Your task to perform on an android device: Add logitech g pro to the cart on costco.com Image 0: 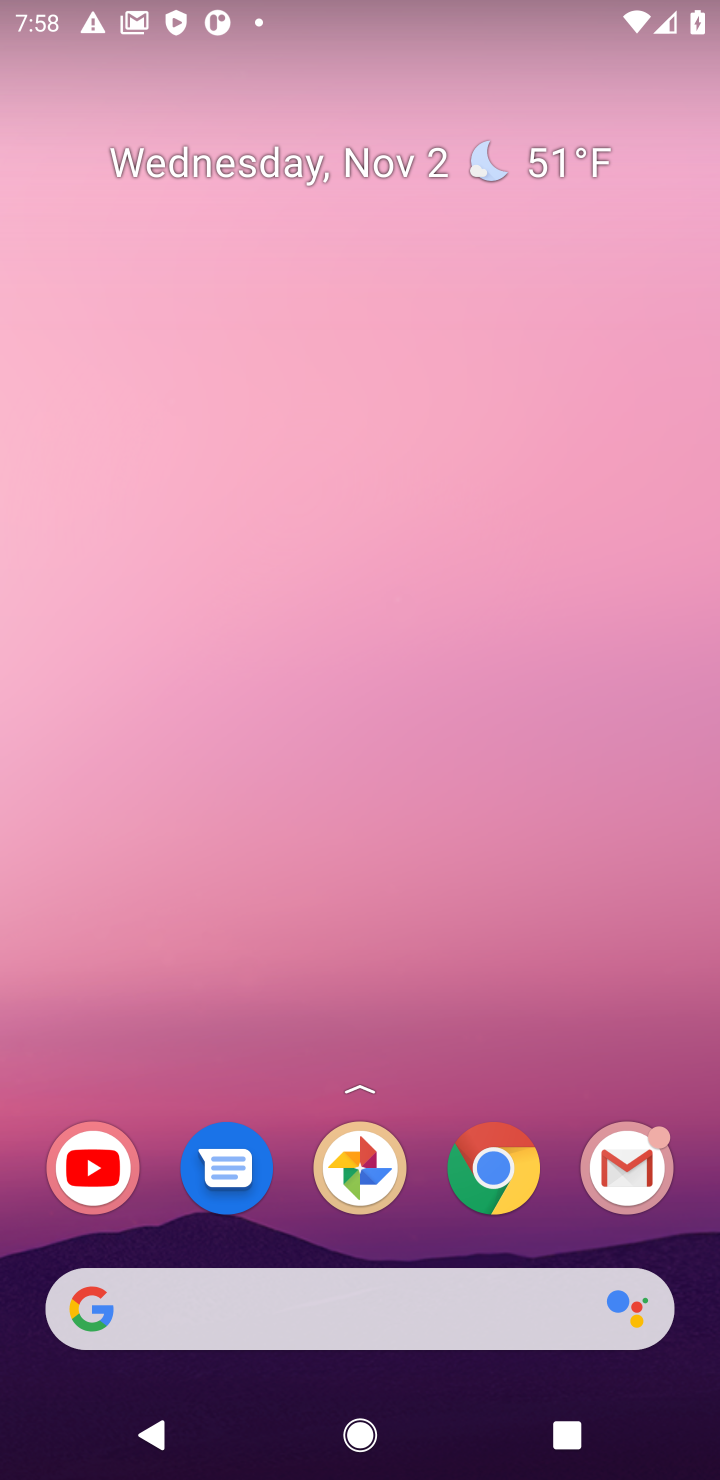
Step 0: press home button
Your task to perform on an android device: Add logitech g pro to the cart on costco.com Image 1: 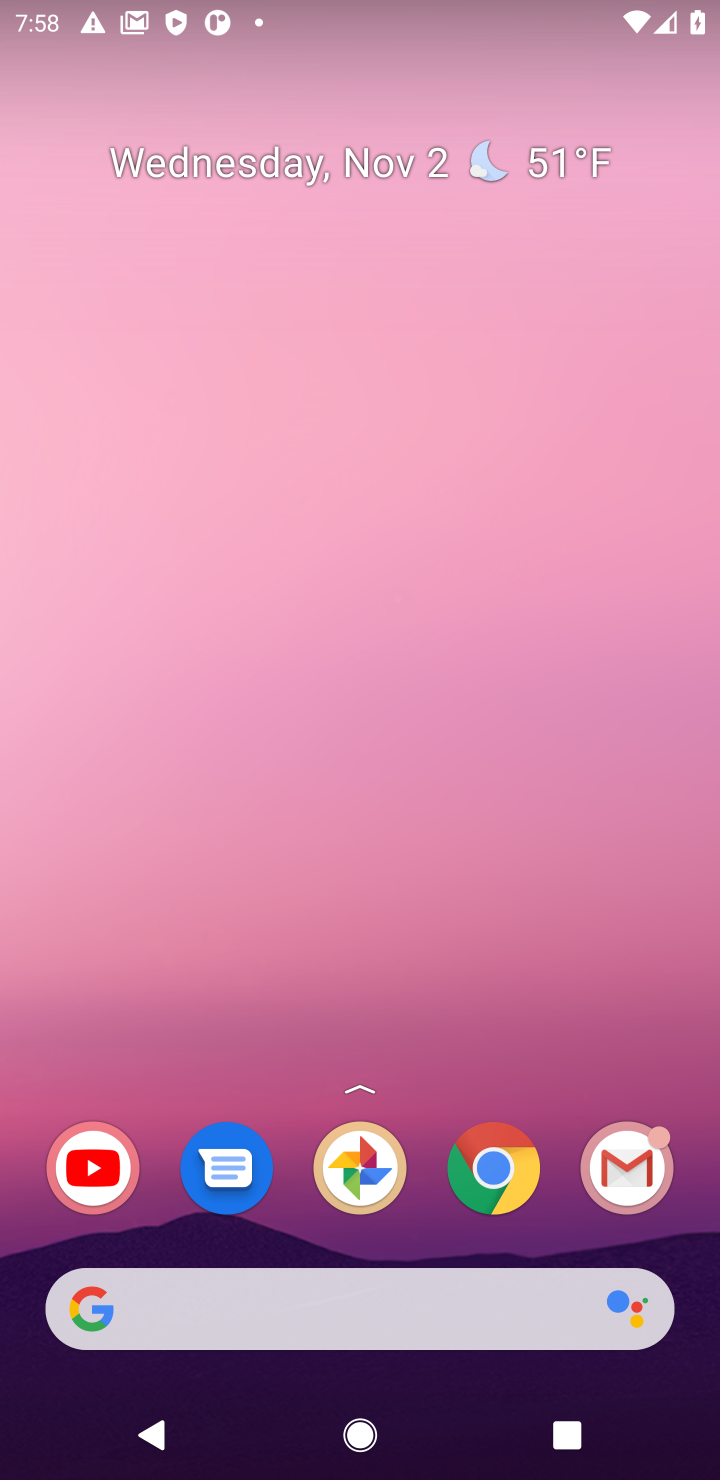
Step 1: drag from (416, 923) to (416, 111)
Your task to perform on an android device: Add logitech g pro to the cart on costco.com Image 2: 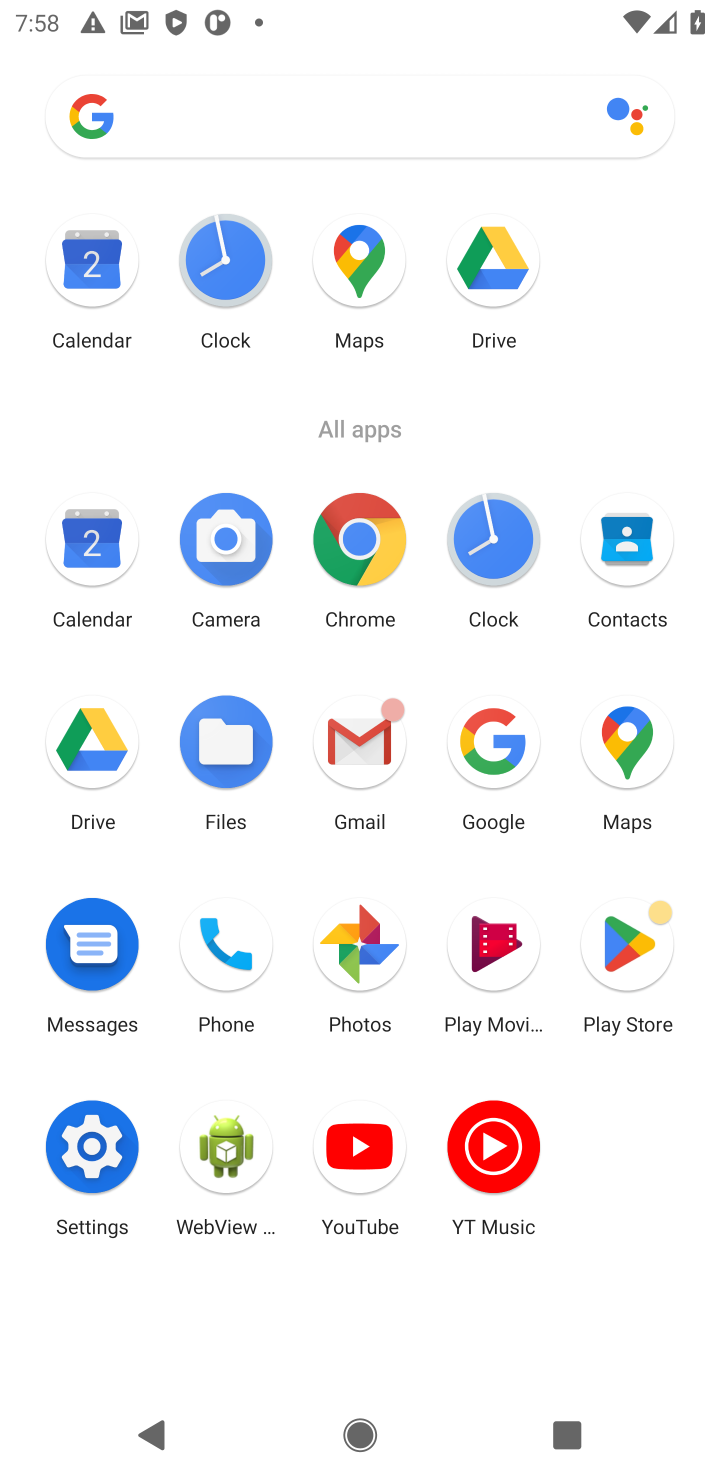
Step 2: click (352, 538)
Your task to perform on an android device: Add logitech g pro to the cart on costco.com Image 3: 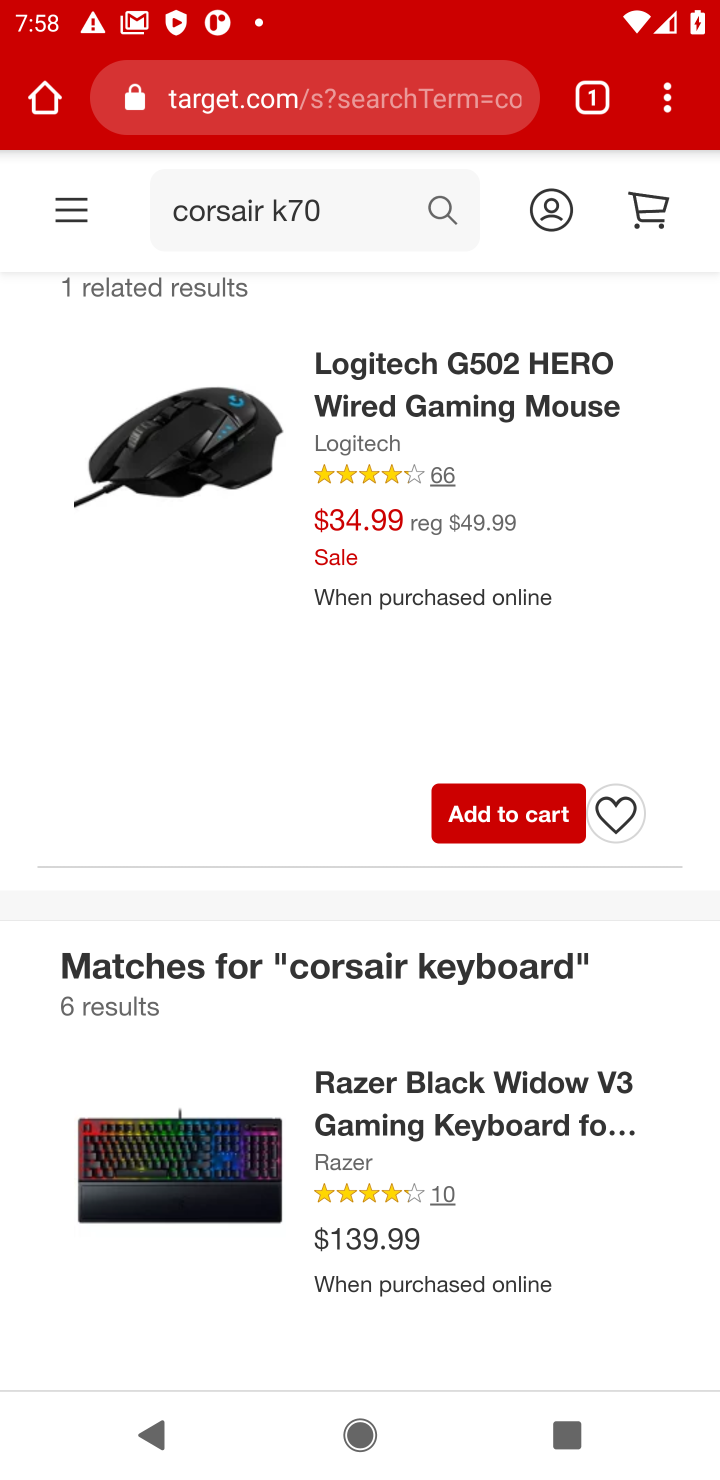
Step 3: click (232, 81)
Your task to perform on an android device: Add logitech g pro to the cart on costco.com Image 4: 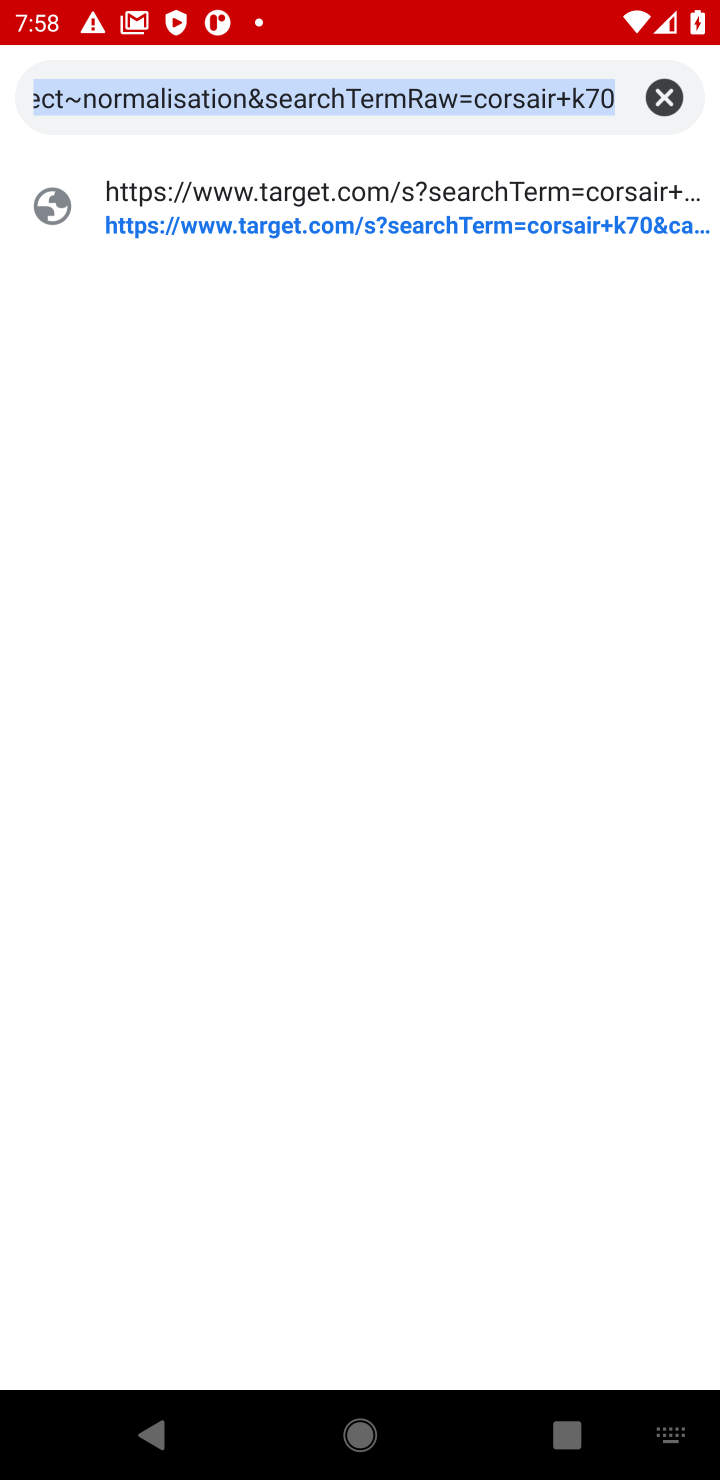
Step 4: type "costco"
Your task to perform on an android device: Add logitech g pro to the cart on costco.com Image 5: 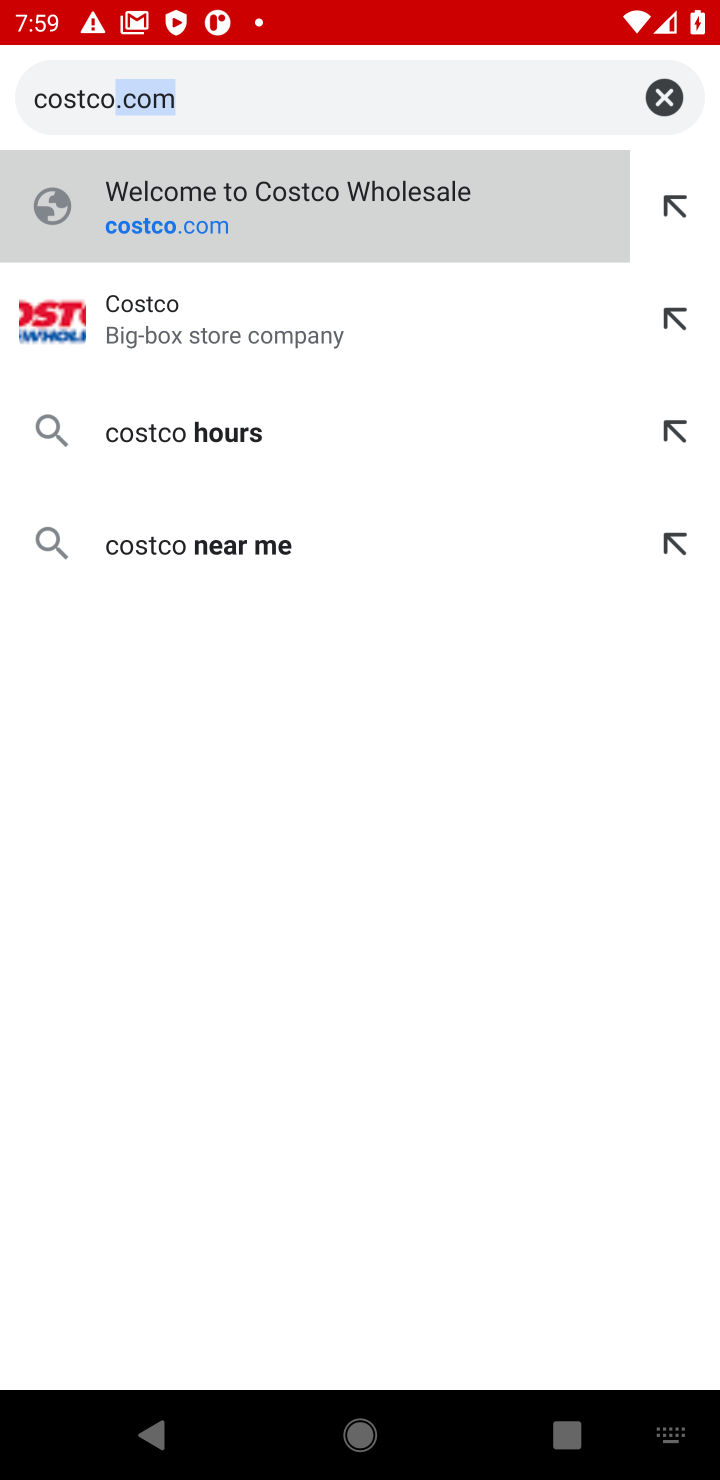
Step 5: click (214, 227)
Your task to perform on an android device: Add logitech g pro to the cart on costco.com Image 6: 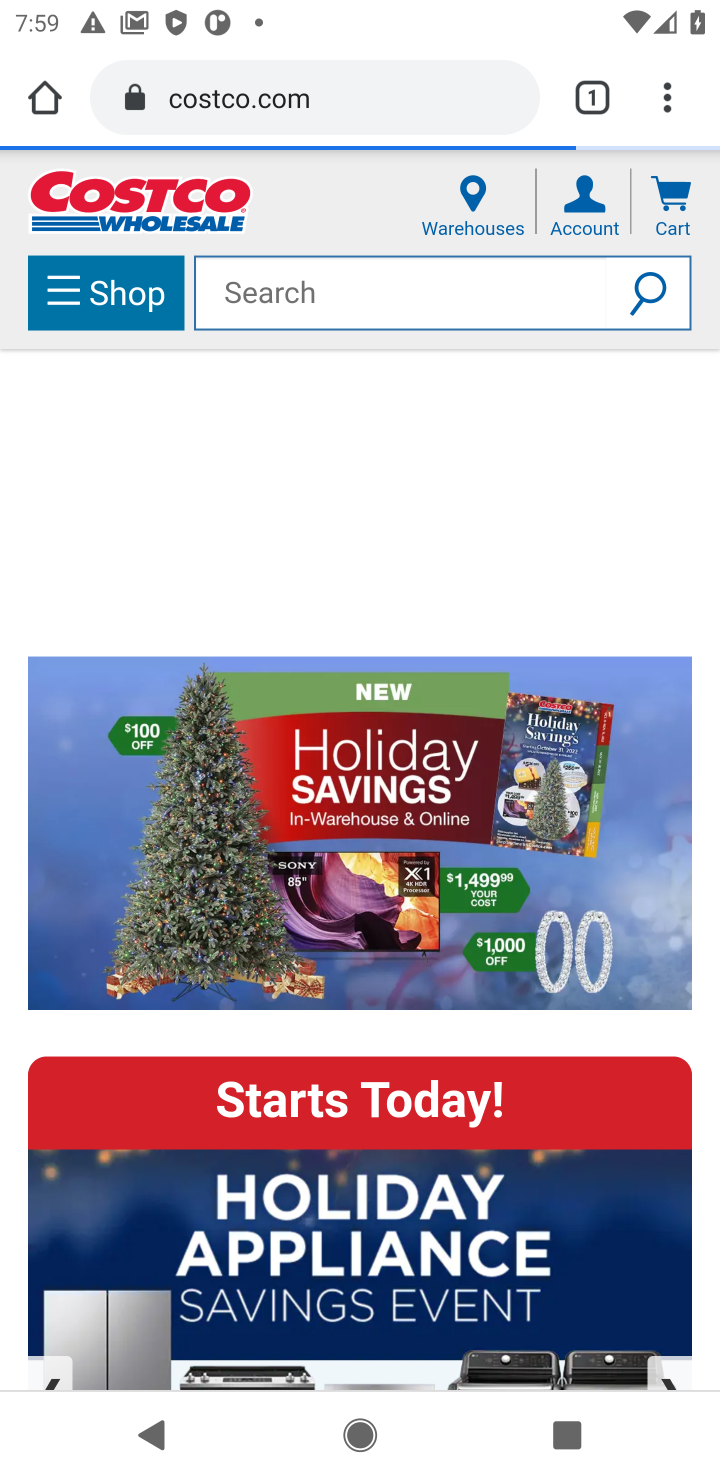
Step 6: click (298, 299)
Your task to perform on an android device: Add logitech g pro to the cart on costco.com Image 7: 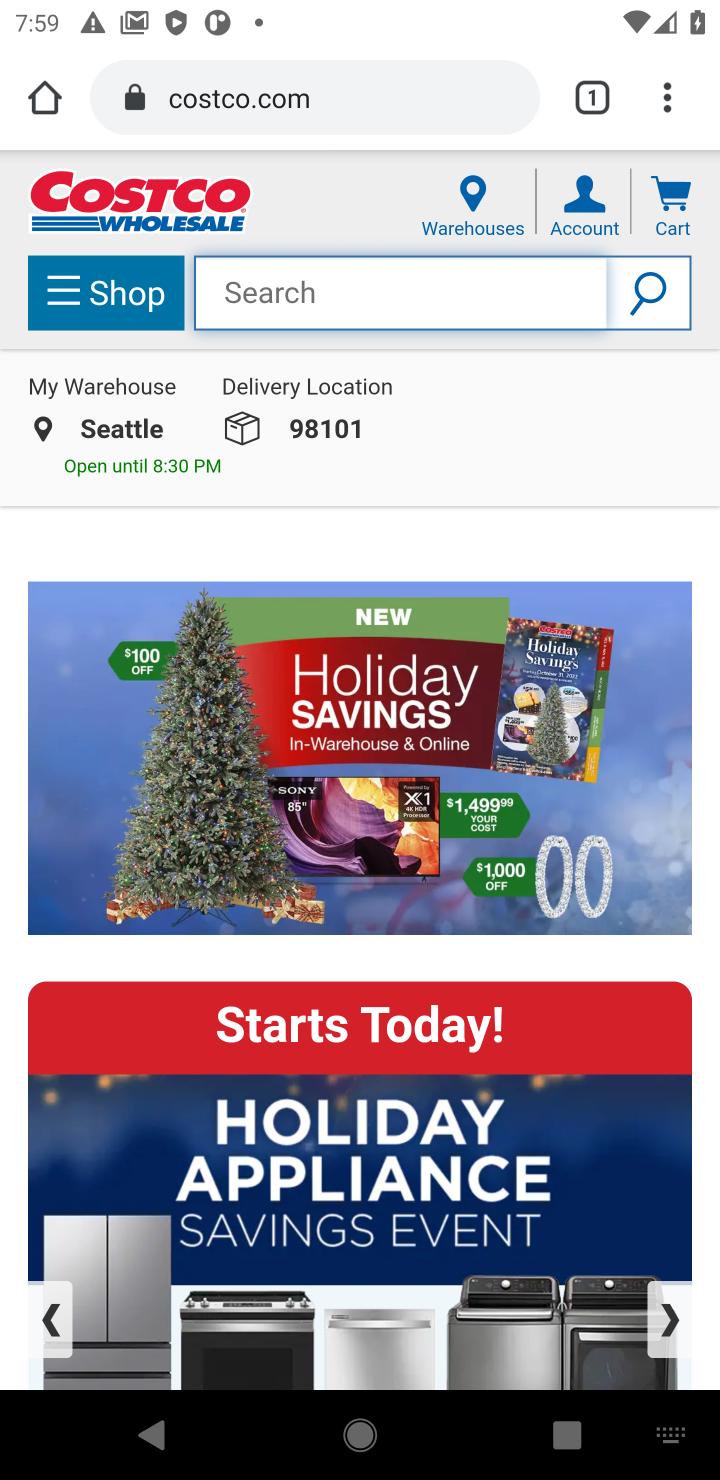
Step 7: type "logitech g pro"
Your task to perform on an android device: Add logitech g pro to the cart on costco.com Image 8: 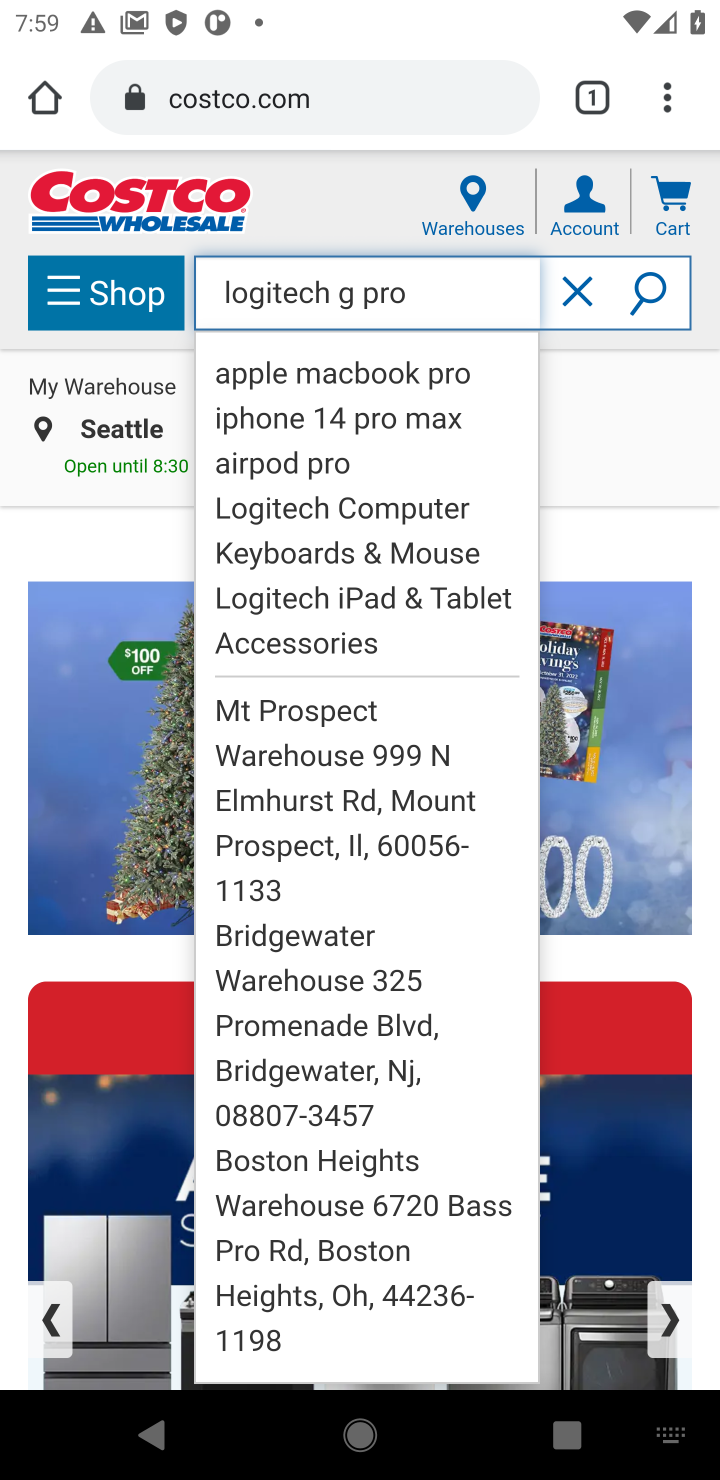
Step 8: click (361, 507)
Your task to perform on an android device: Add logitech g pro to the cart on costco.com Image 9: 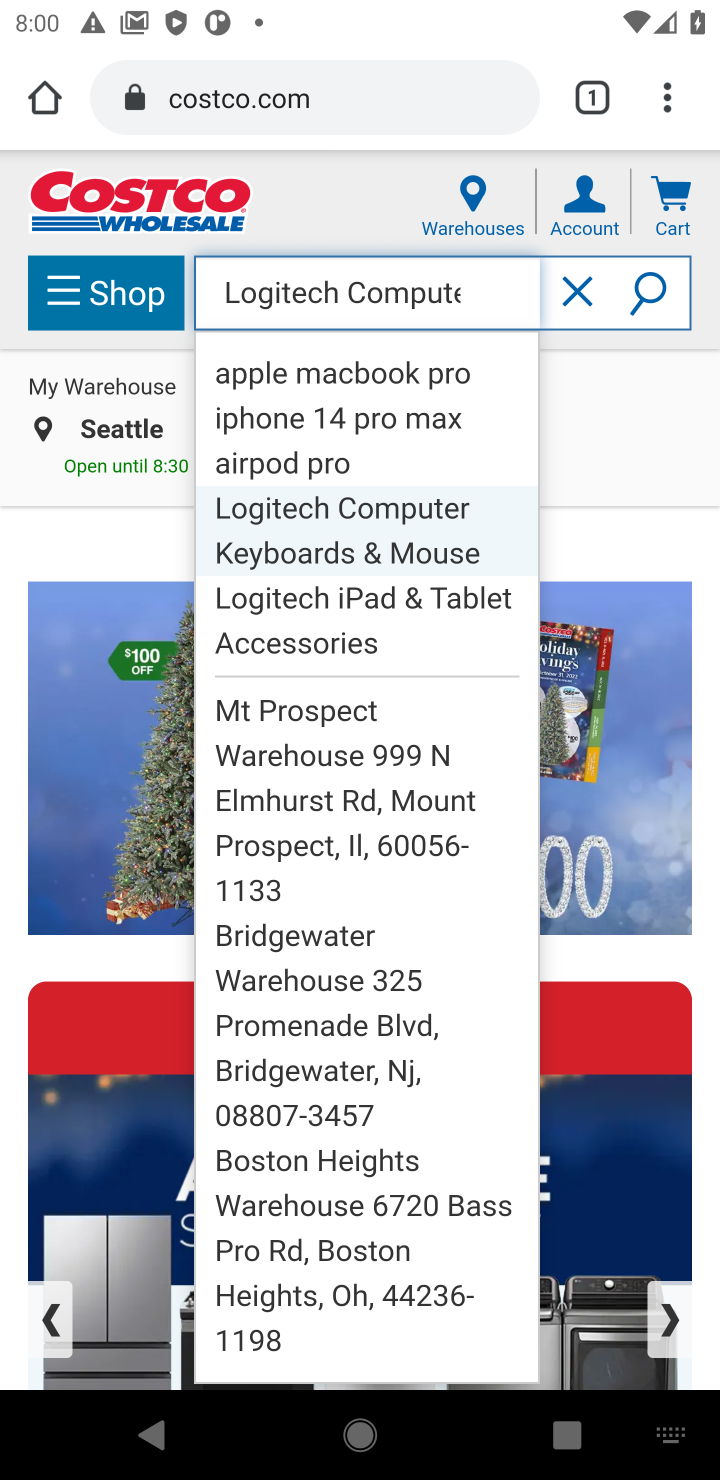
Step 9: click (653, 293)
Your task to perform on an android device: Add logitech g pro to the cart on costco.com Image 10: 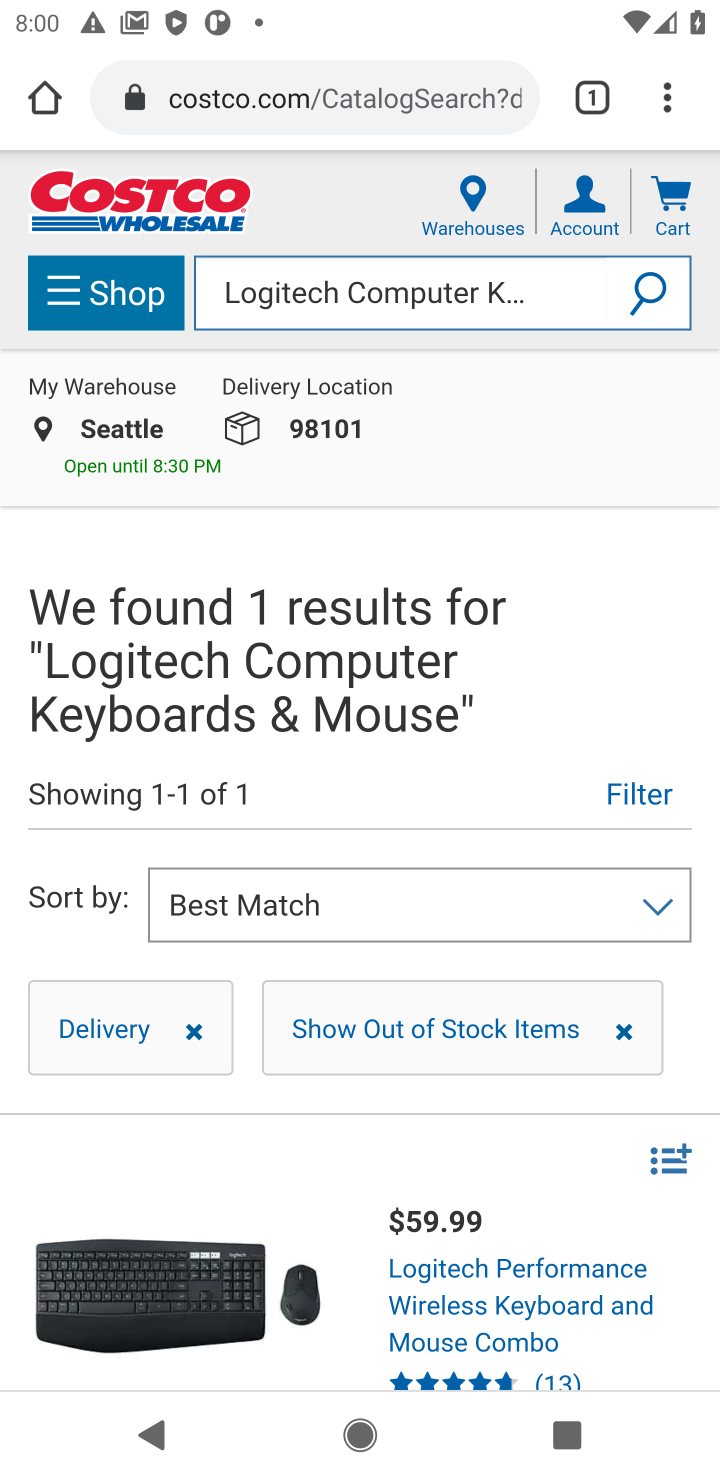
Step 10: drag from (354, 1155) to (414, 370)
Your task to perform on an android device: Add logitech g pro to the cart on costco.com Image 11: 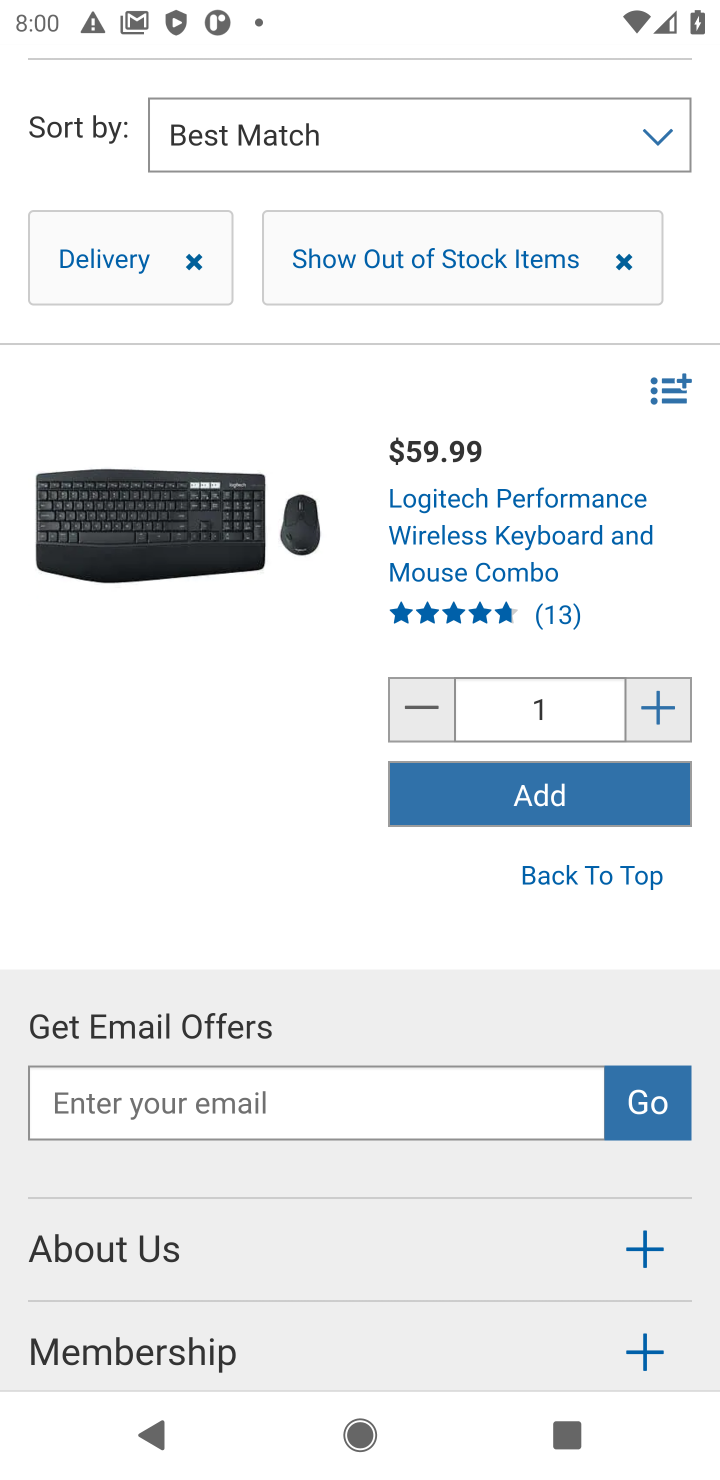
Step 11: click (576, 808)
Your task to perform on an android device: Add logitech g pro to the cart on costco.com Image 12: 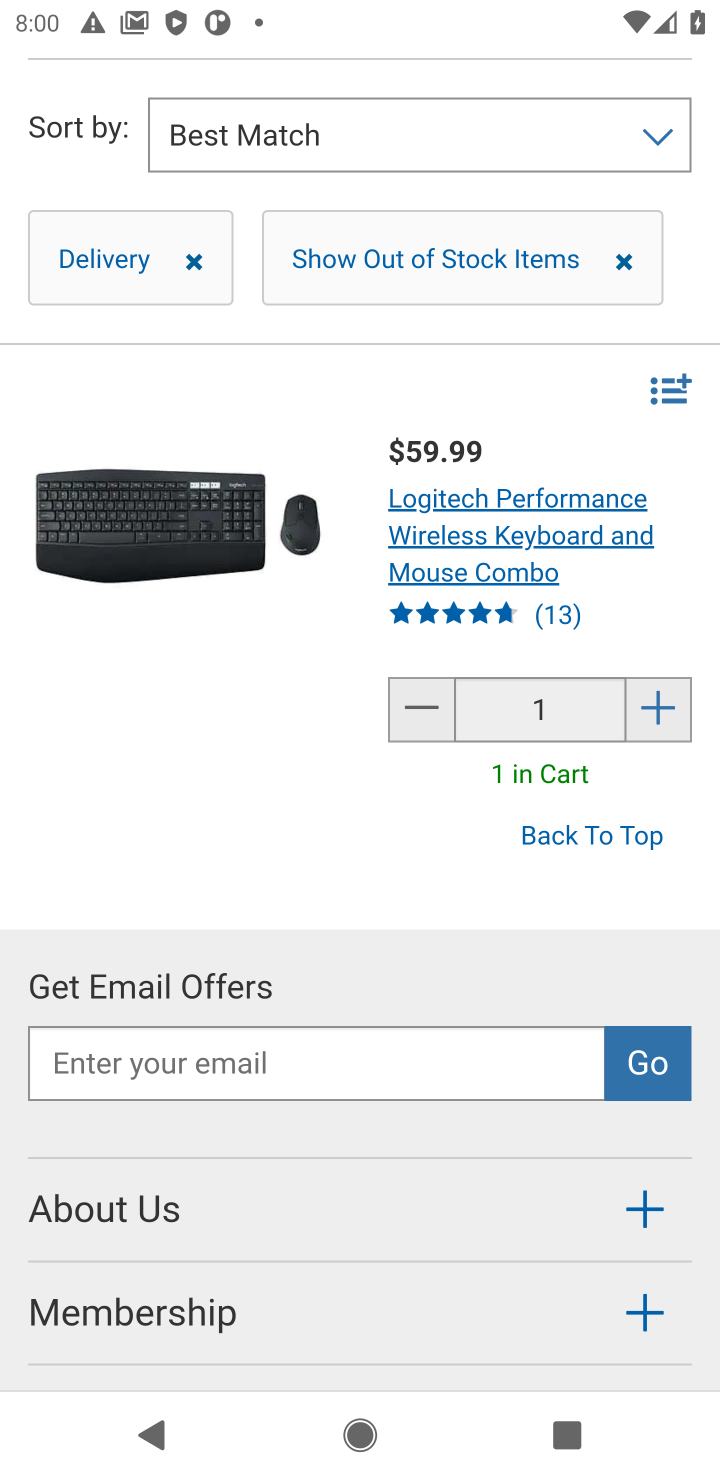
Step 12: click (530, 784)
Your task to perform on an android device: Add logitech g pro to the cart on costco.com Image 13: 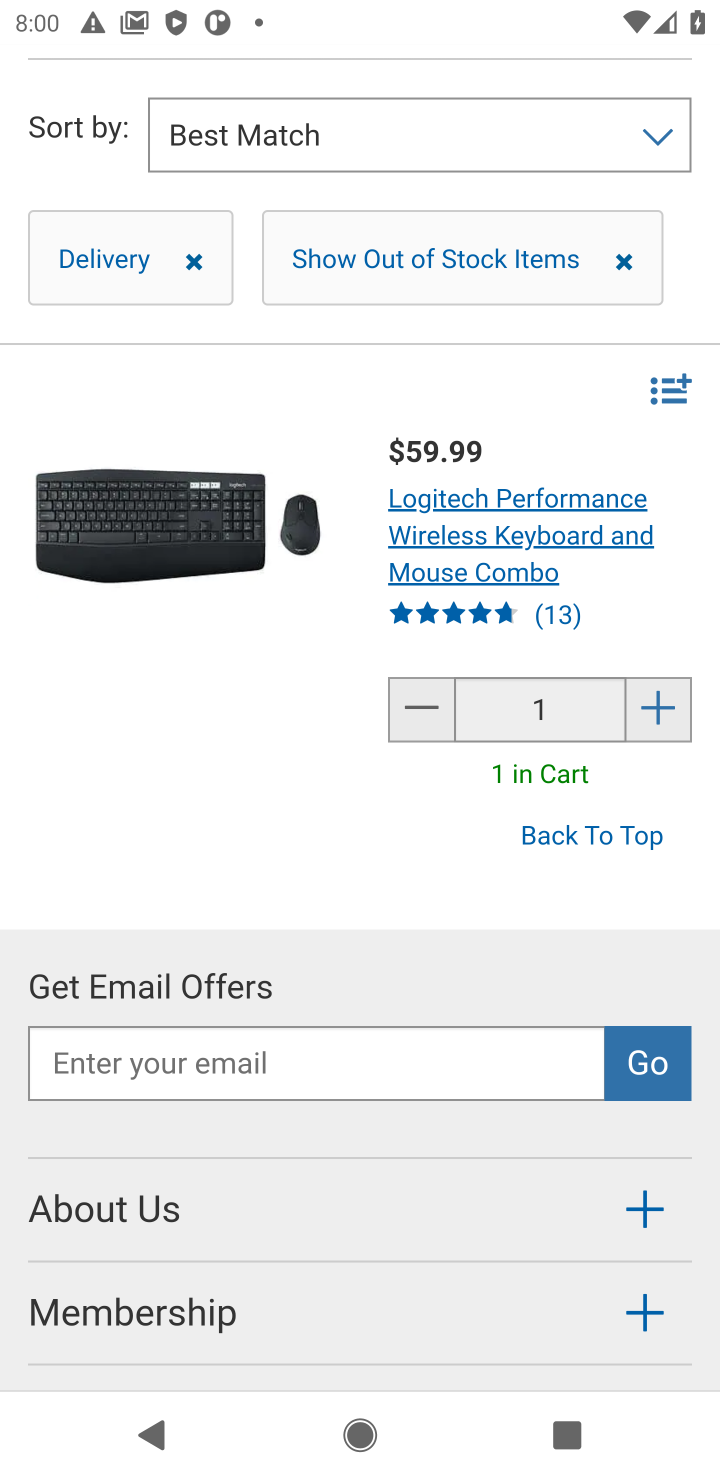
Step 13: drag from (288, 304) to (274, 1361)
Your task to perform on an android device: Add logitech g pro to the cart on costco.com Image 14: 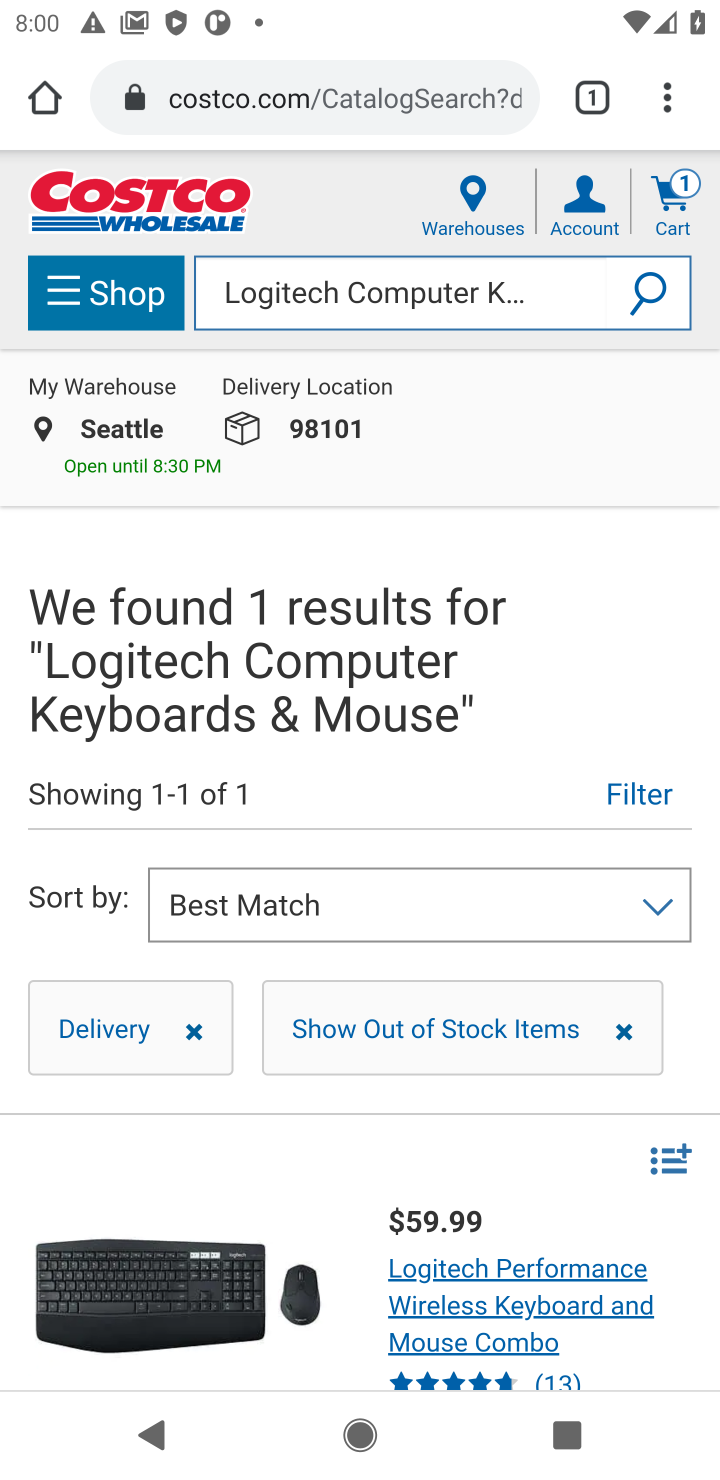
Step 14: click (674, 198)
Your task to perform on an android device: Add logitech g pro to the cart on costco.com Image 15: 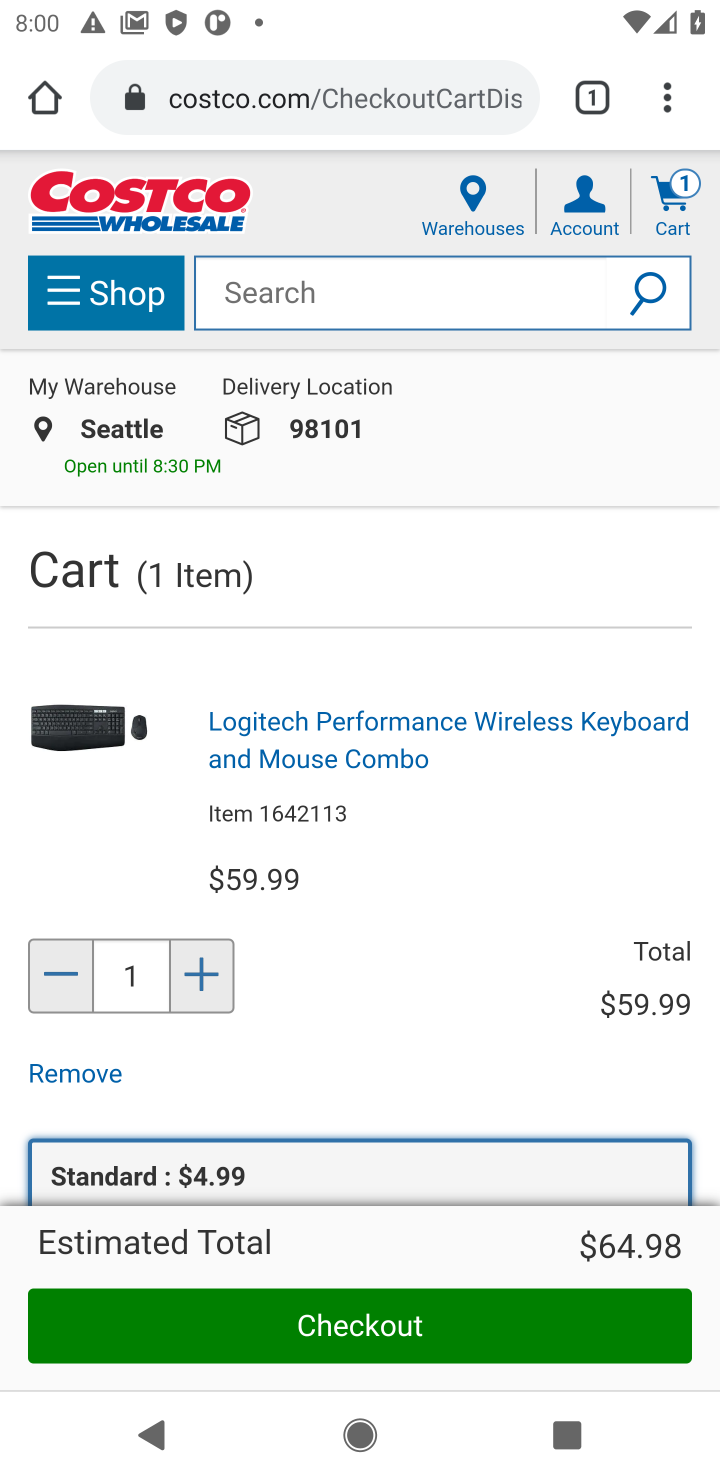
Step 15: task complete